Your task to perform on an android device: Turn on the flashlight Image 0: 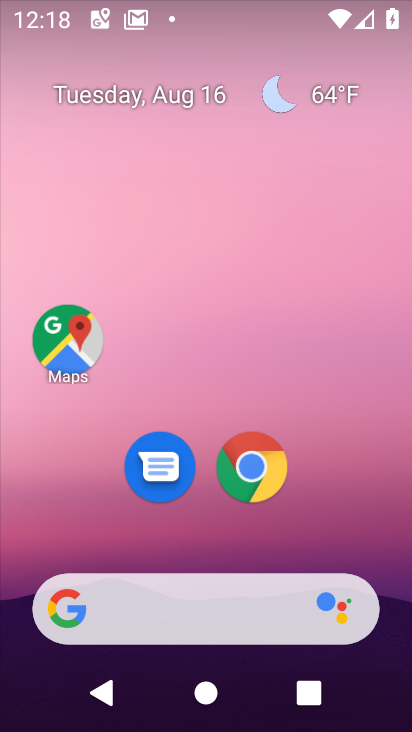
Step 0: press home button
Your task to perform on an android device: Turn on the flashlight Image 1: 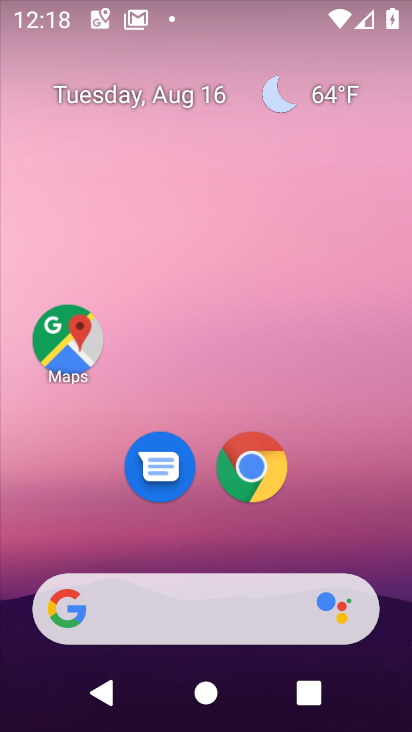
Step 1: drag from (282, 1) to (300, 283)
Your task to perform on an android device: Turn on the flashlight Image 2: 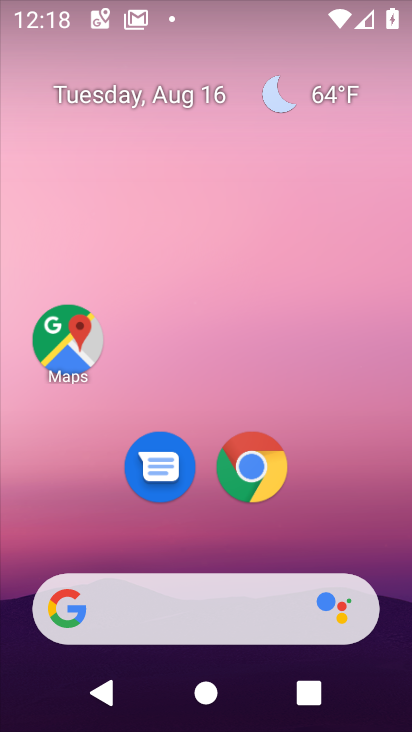
Step 2: drag from (253, 10) to (280, 443)
Your task to perform on an android device: Turn on the flashlight Image 3: 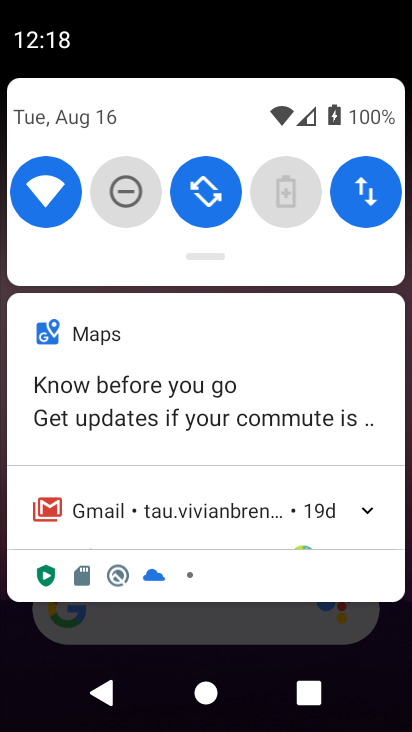
Step 3: drag from (239, 92) to (268, 378)
Your task to perform on an android device: Turn on the flashlight Image 4: 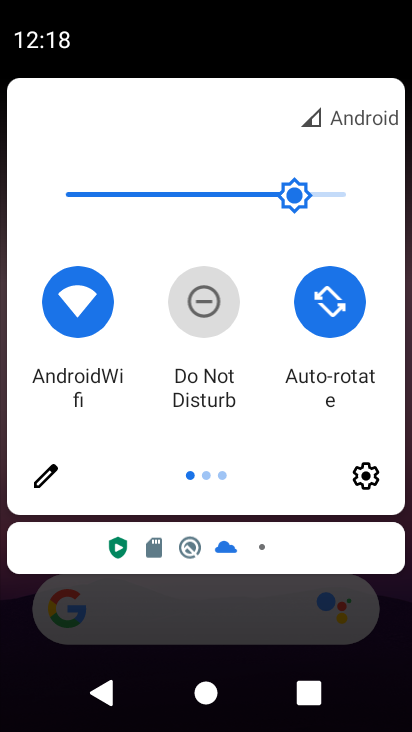
Step 4: click (45, 482)
Your task to perform on an android device: Turn on the flashlight Image 5: 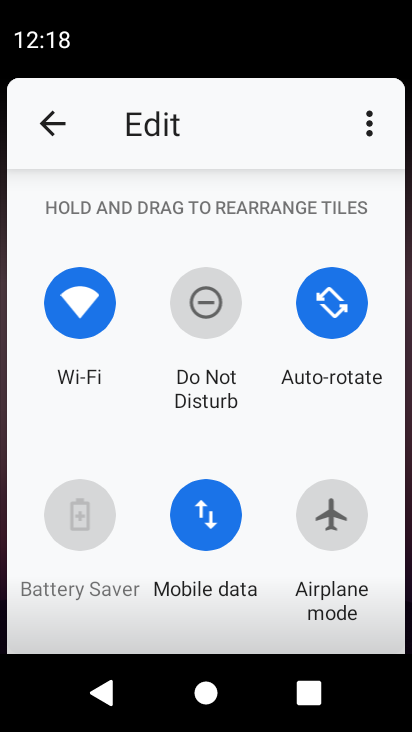
Step 5: task complete